Your task to perform on an android device: Do I have any events today? Image 0: 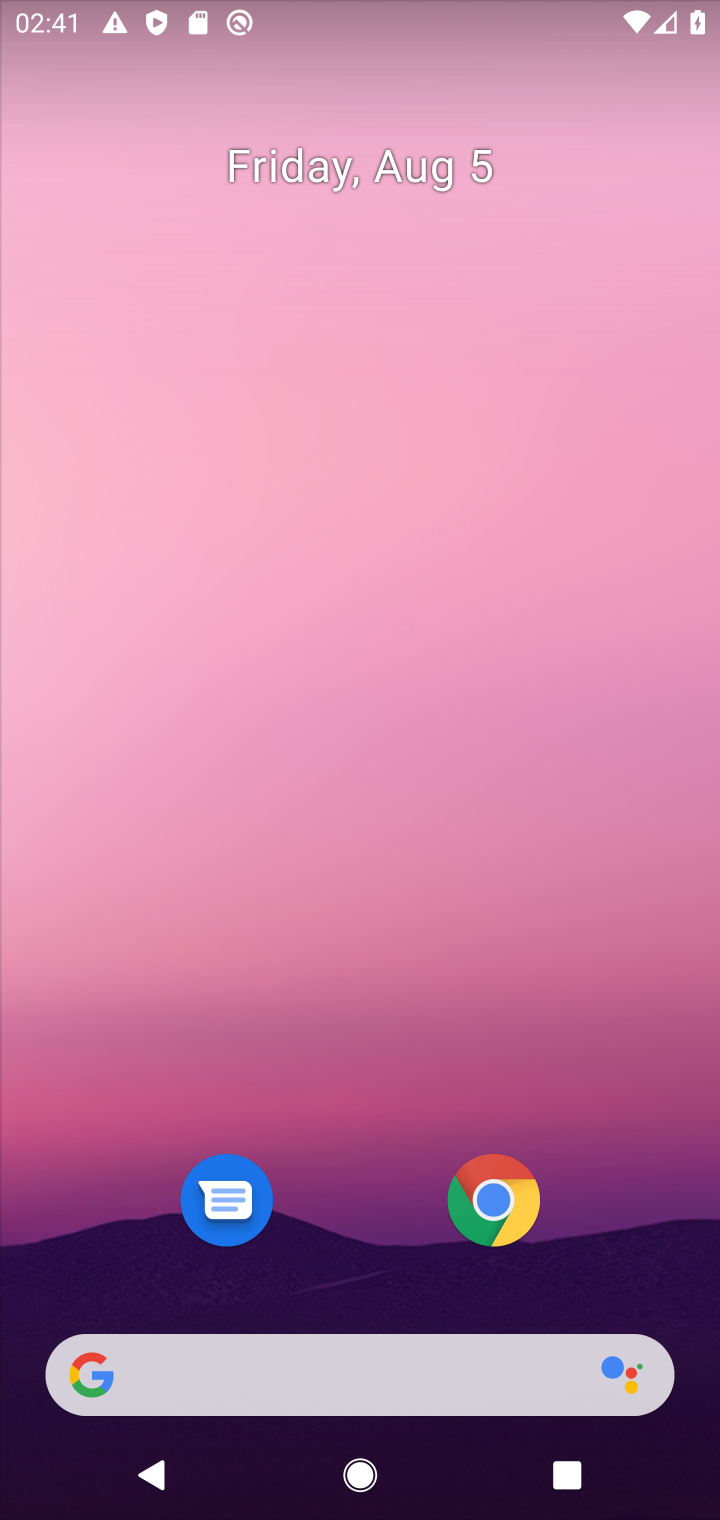
Step 0: drag from (398, 839) to (398, 332)
Your task to perform on an android device: Do I have any events today? Image 1: 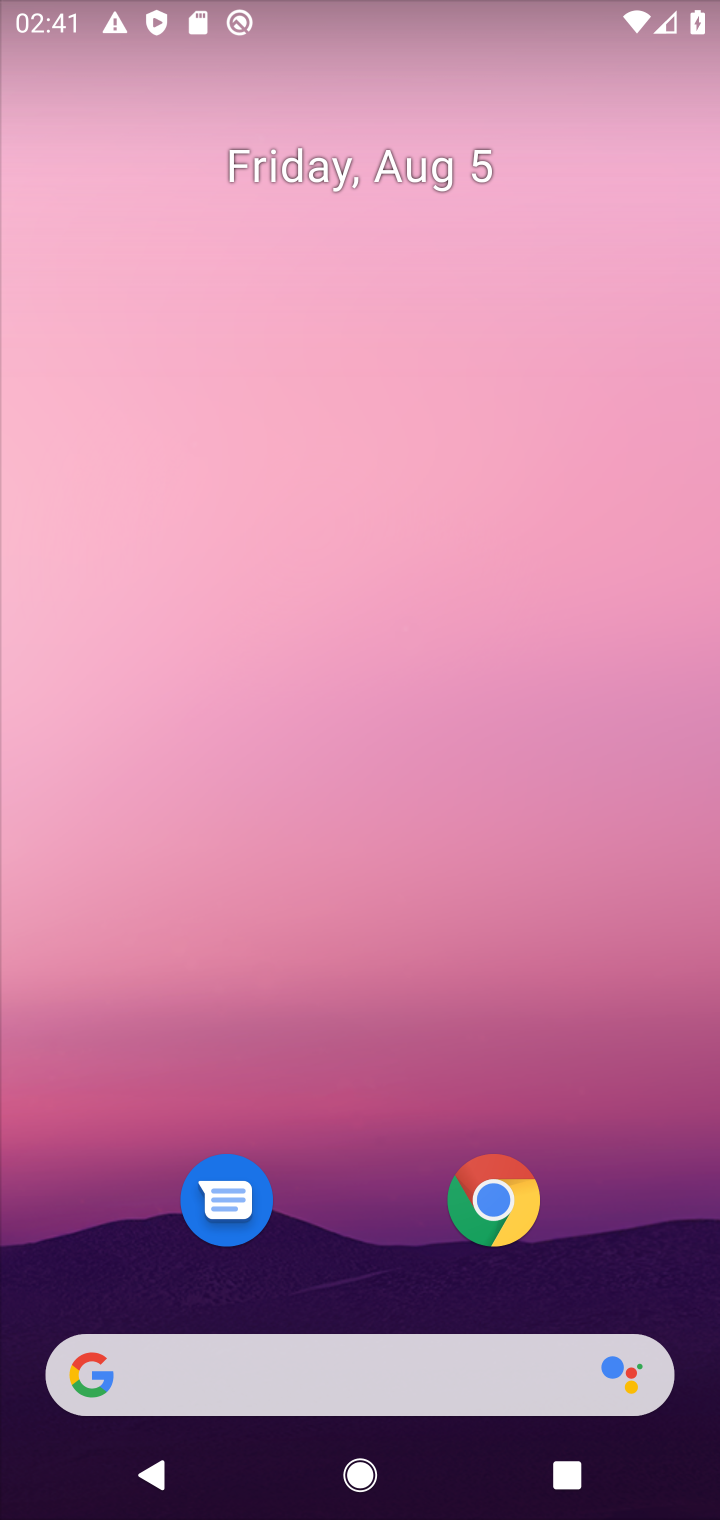
Step 1: drag from (331, 1177) to (366, 30)
Your task to perform on an android device: Do I have any events today? Image 2: 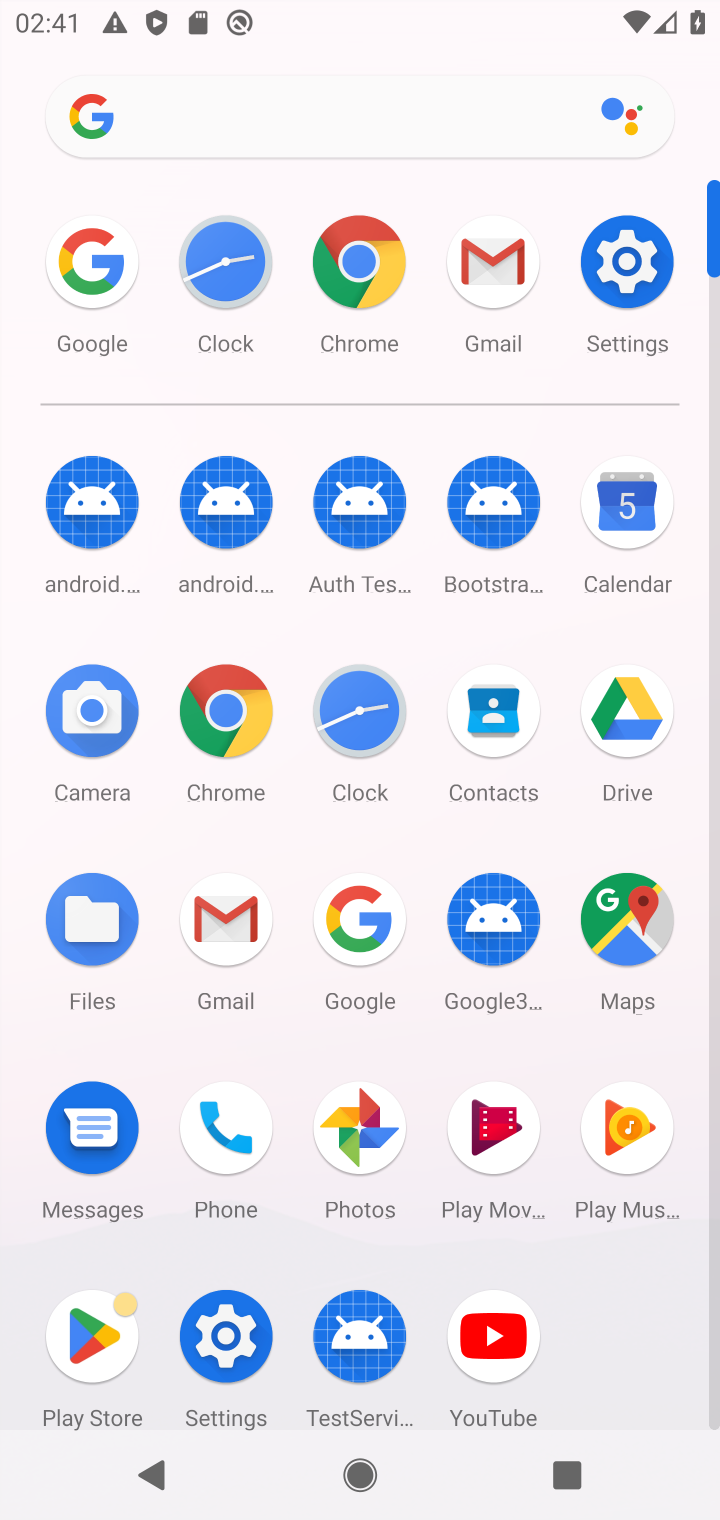
Step 2: click (600, 487)
Your task to perform on an android device: Do I have any events today? Image 3: 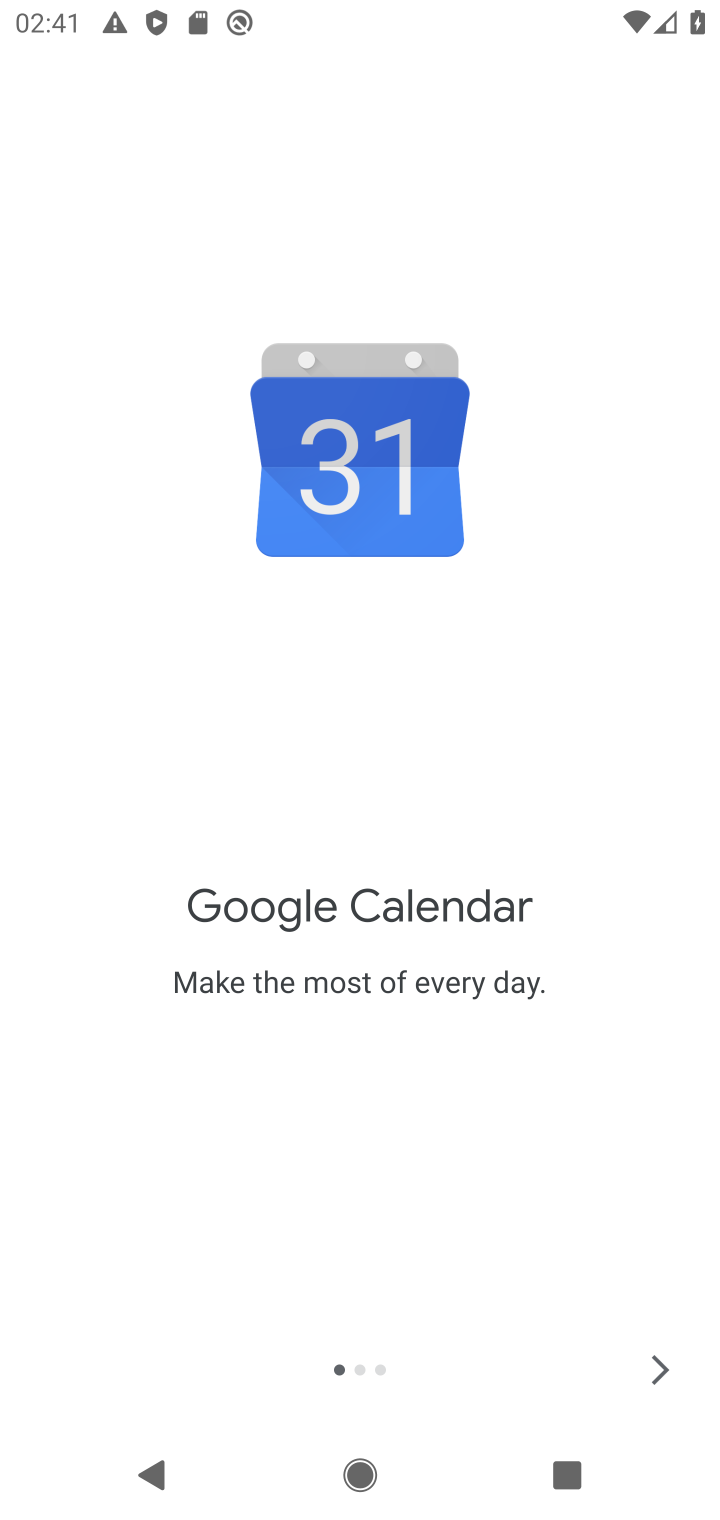
Step 3: click (634, 1364)
Your task to perform on an android device: Do I have any events today? Image 4: 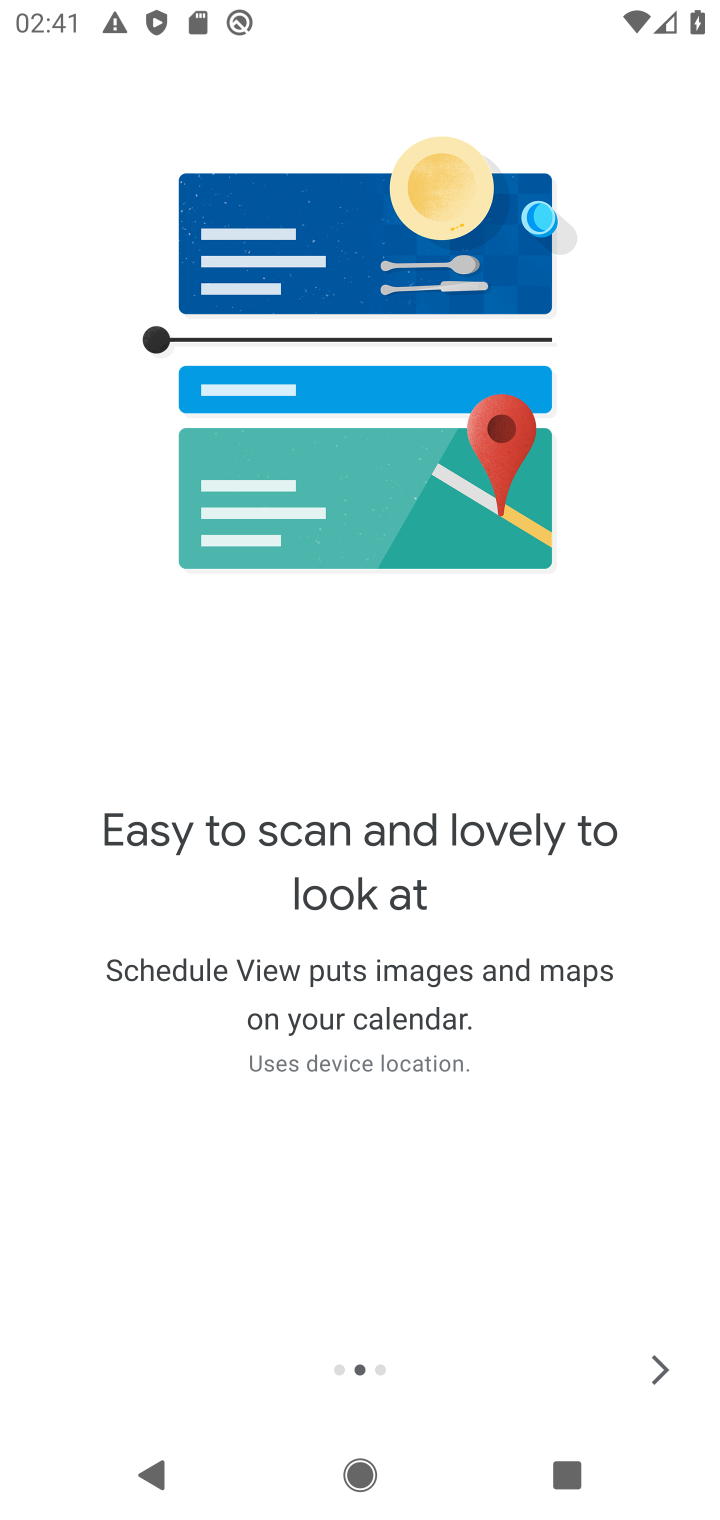
Step 4: click (634, 1364)
Your task to perform on an android device: Do I have any events today? Image 5: 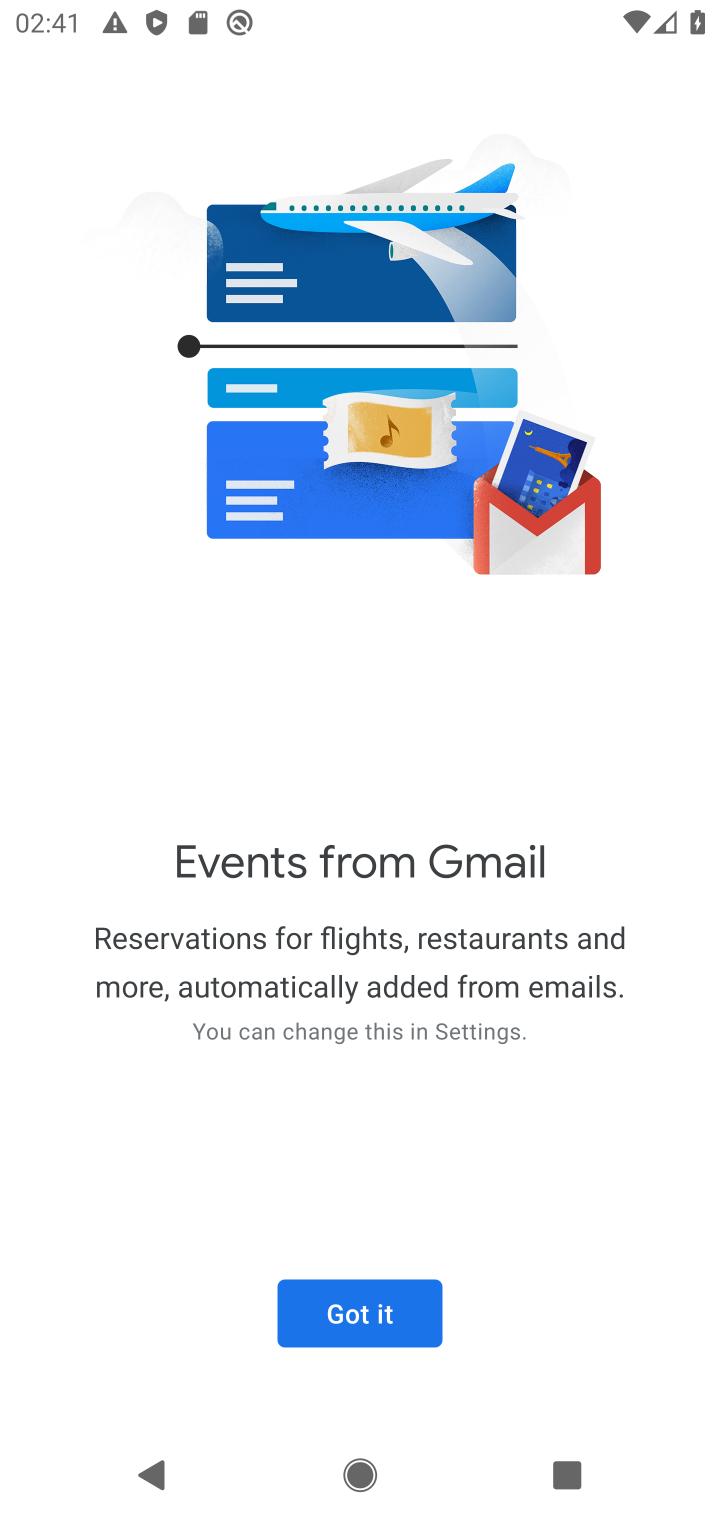
Step 5: click (421, 1306)
Your task to perform on an android device: Do I have any events today? Image 6: 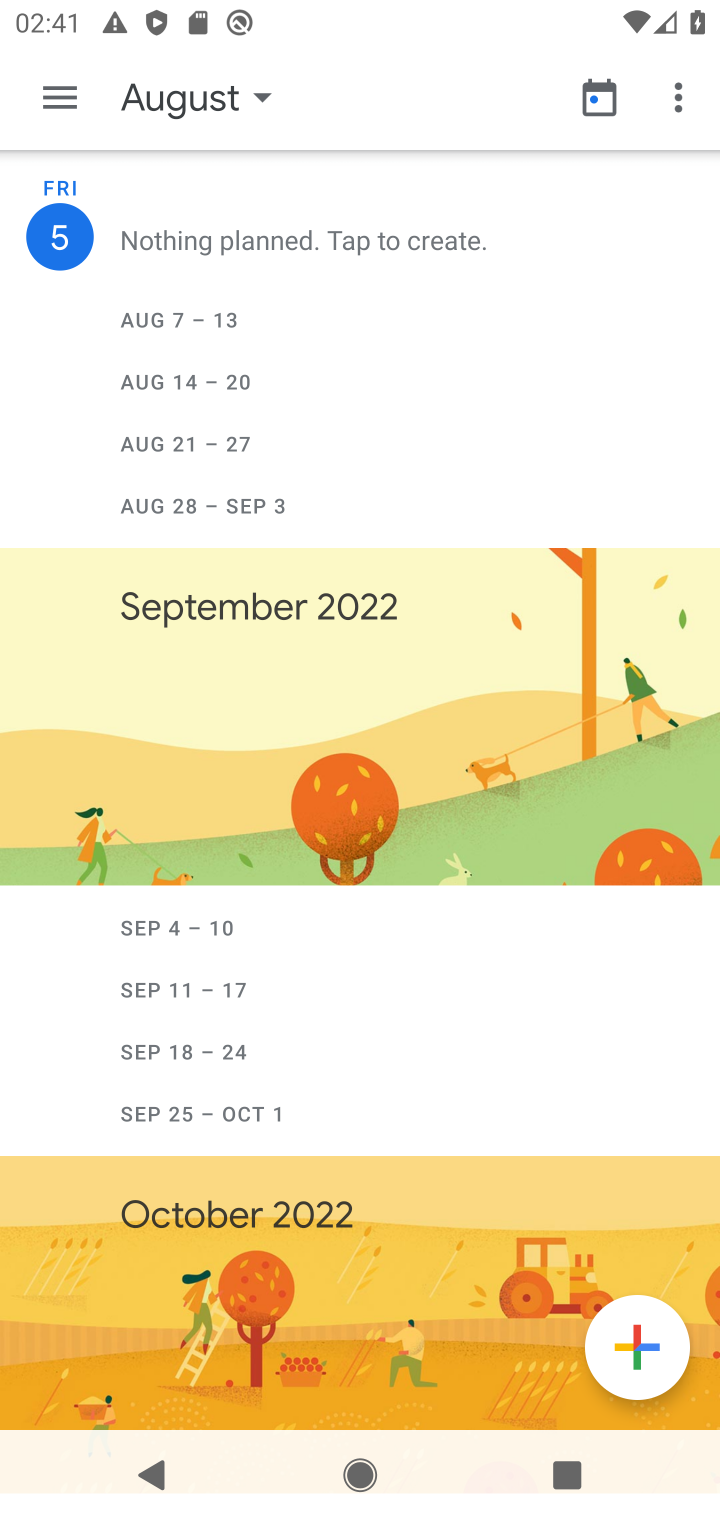
Step 6: click (246, 89)
Your task to perform on an android device: Do I have any events today? Image 7: 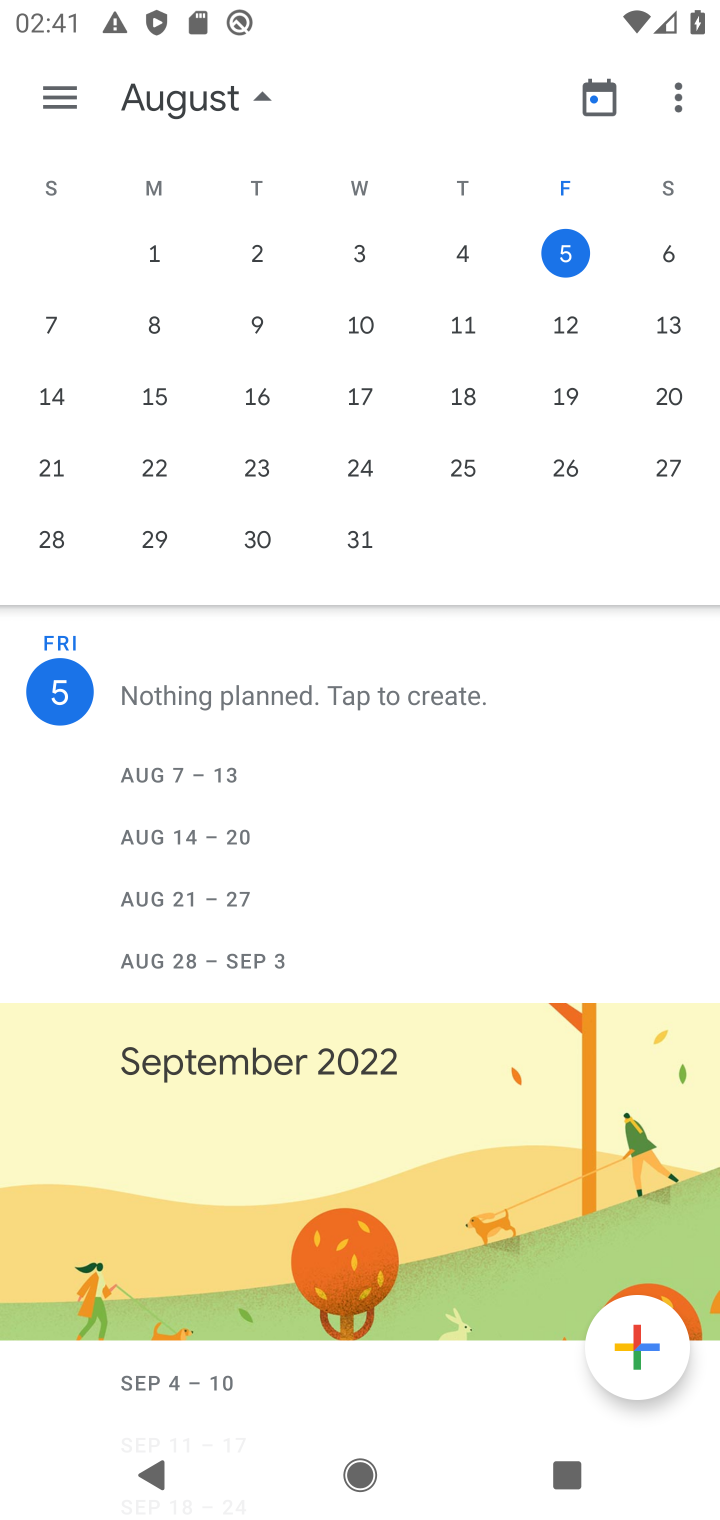
Step 7: task complete